Your task to perform on an android device: turn on priority inbox in the gmail app Image 0: 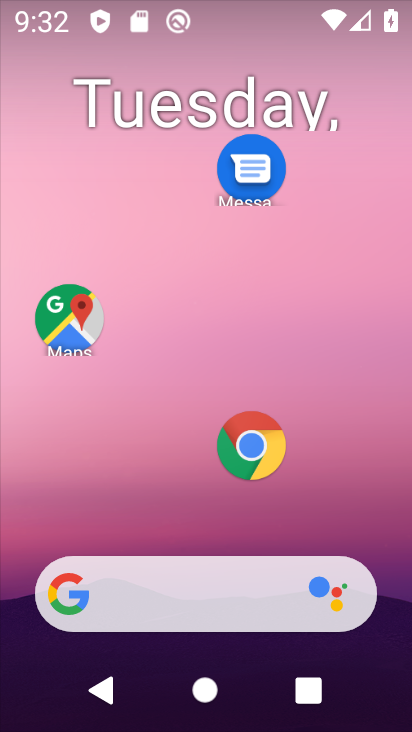
Step 0: drag from (161, 461) to (225, 120)
Your task to perform on an android device: turn on priority inbox in the gmail app Image 1: 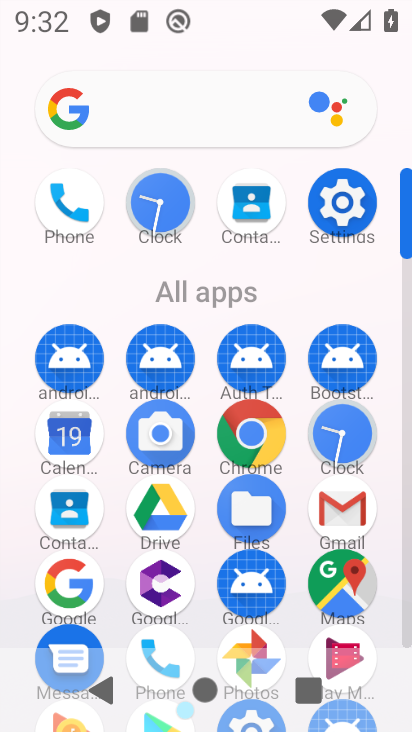
Step 1: click (351, 514)
Your task to perform on an android device: turn on priority inbox in the gmail app Image 2: 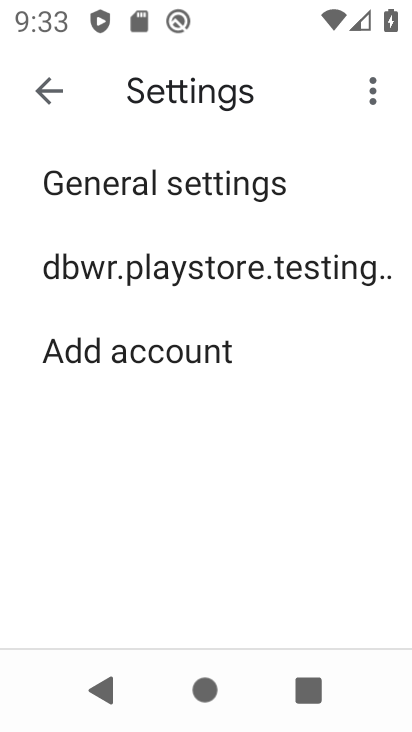
Step 2: click (237, 292)
Your task to perform on an android device: turn on priority inbox in the gmail app Image 3: 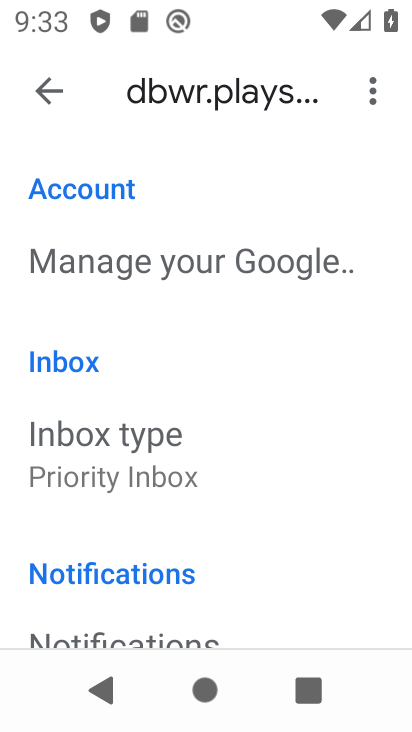
Step 3: click (151, 463)
Your task to perform on an android device: turn on priority inbox in the gmail app Image 4: 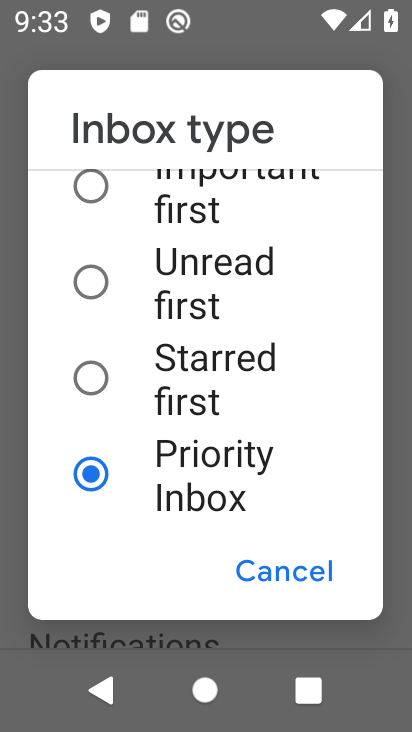
Step 4: task complete